Your task to perform on an android device: Go to Google maps Image 0: 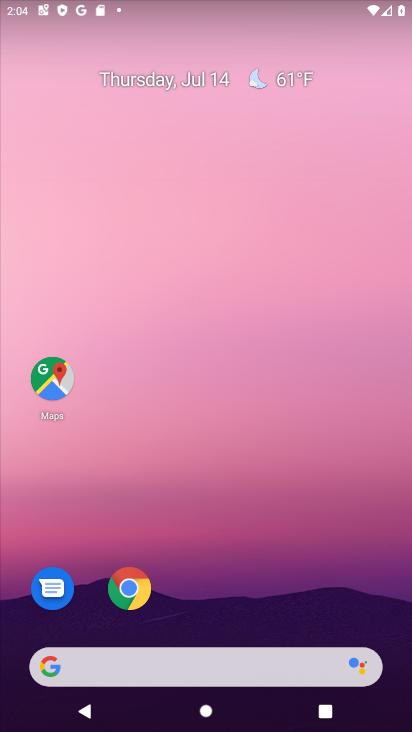
Step 0: click (53, 377)
Your task to perform on an android device: Go to Google maps Image 1: 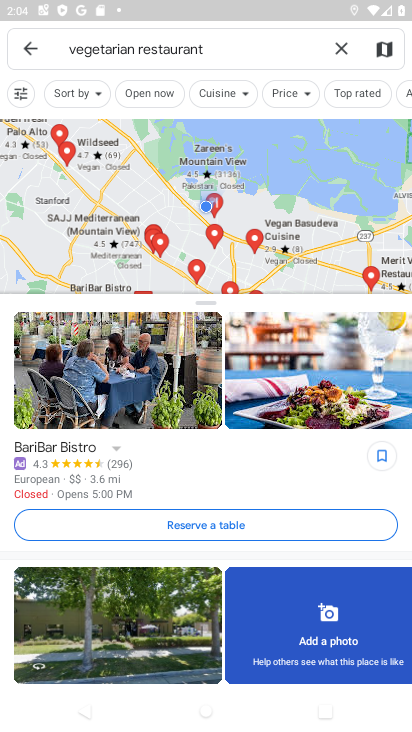
Step 1: task complete